Your task to perform on an android device: change the clock display to digital Image 0: 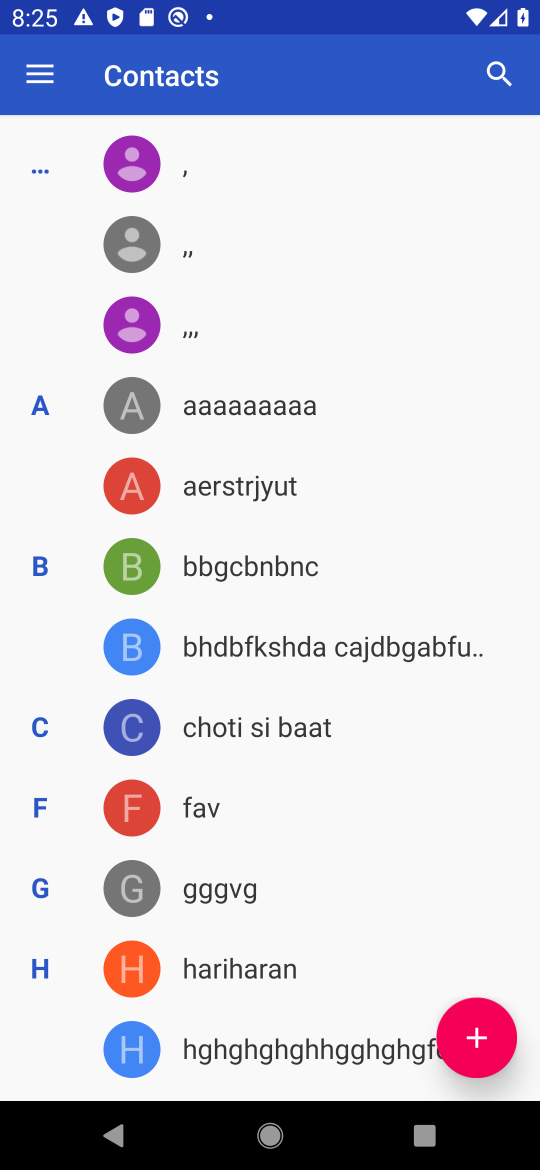
Step 0: press home button
Your task to perform on an android device: change the clock display to digital Image 1: 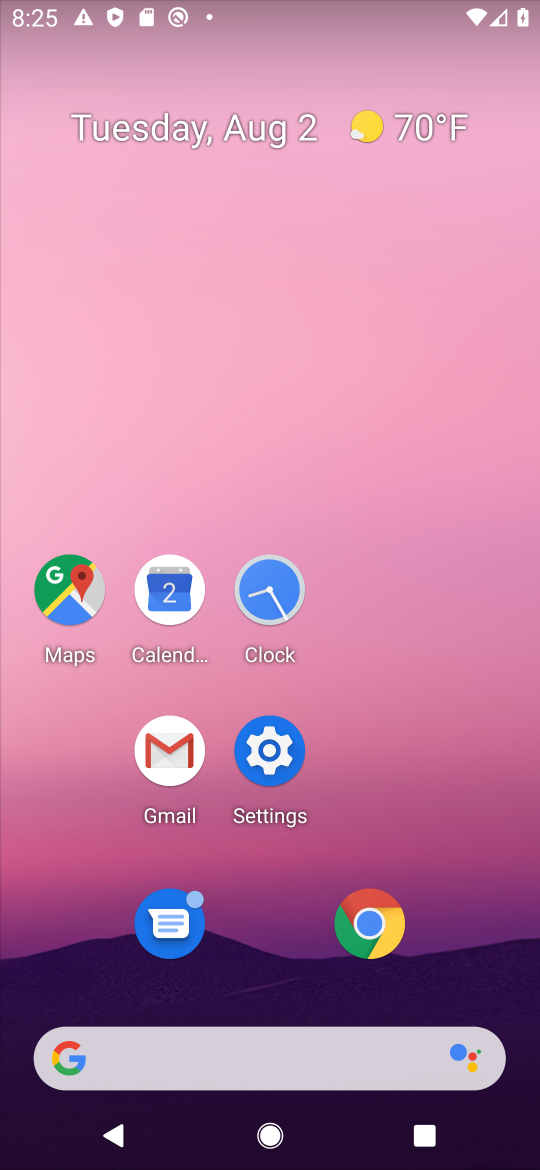
Step 1: click (257, 585)
Your task to perform on an android device: change the clock display to digital Image 2: 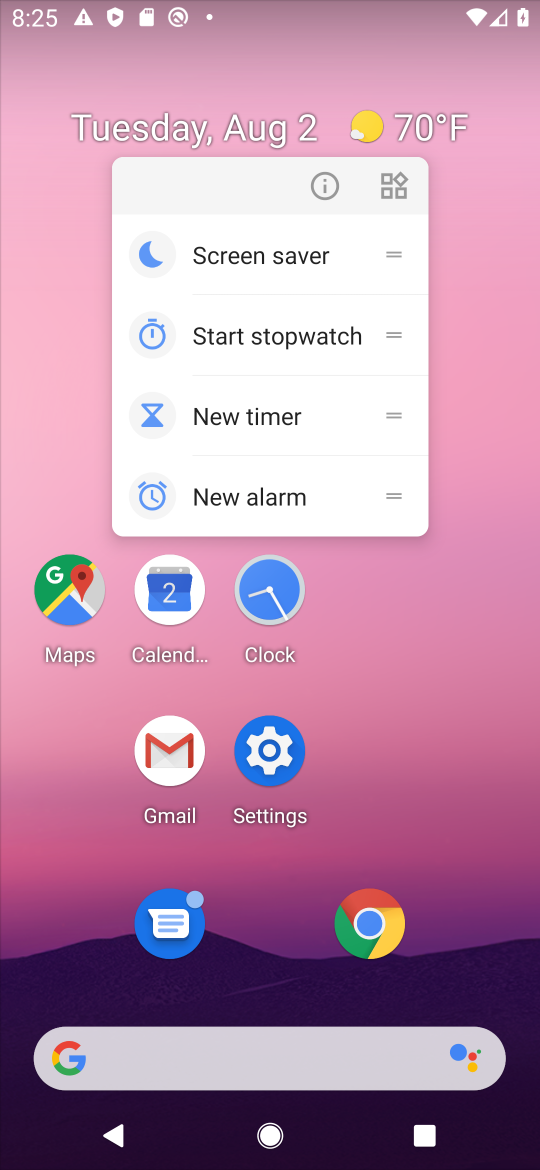
Step 2: click (264, 601)
Your task to perform on an android device: change the clock display to digital Image 3: 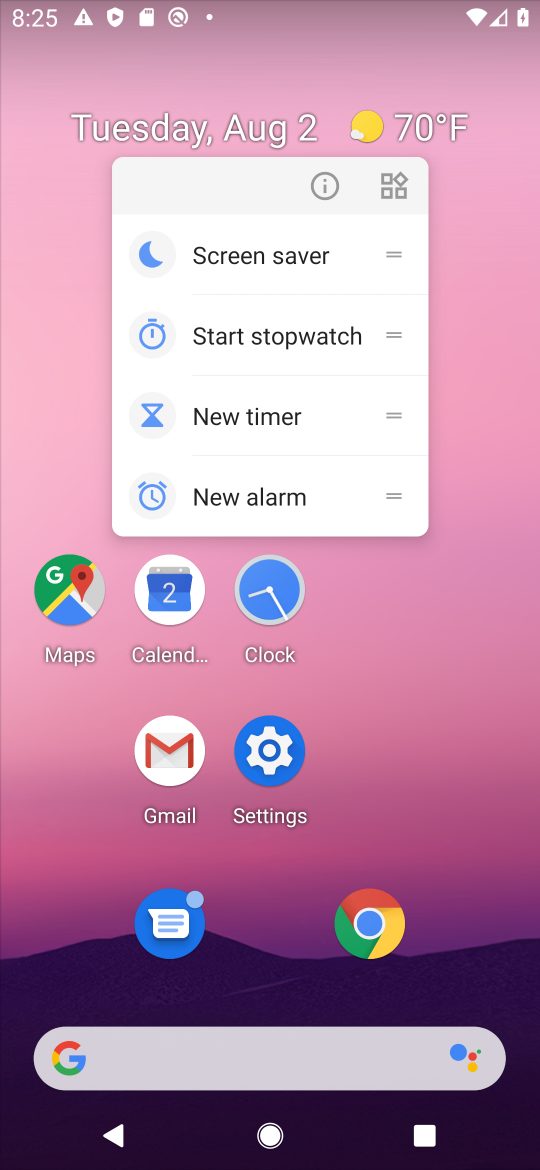
Step 3: click (264, 601)
Your task to perform on an android device: change the clock display to digital Image 4: 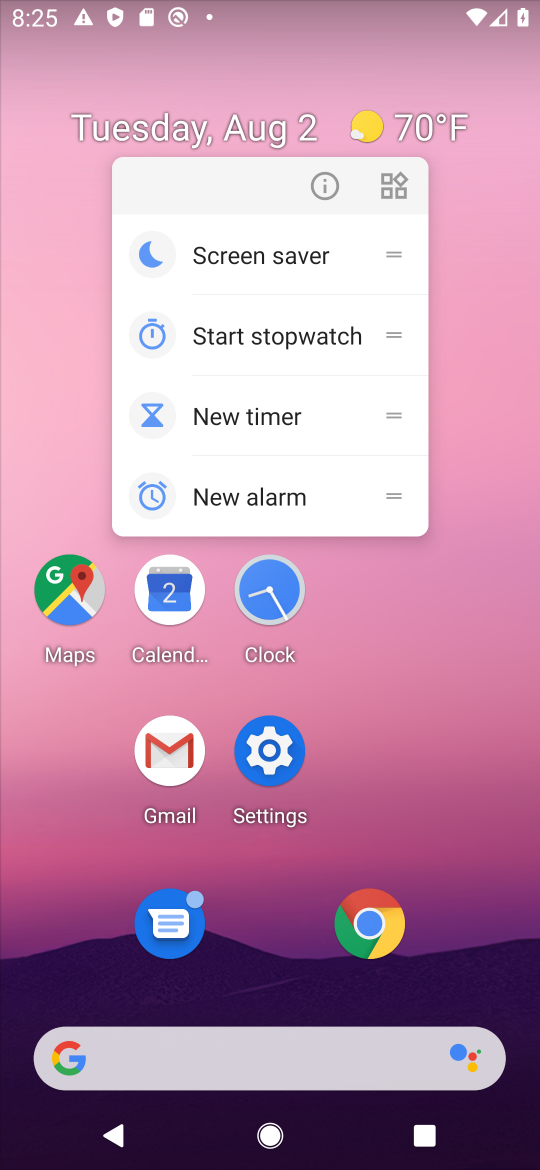
Step 4: click (261, 590)
Your task to perform on an android device: change the clock display to digital Image 5: 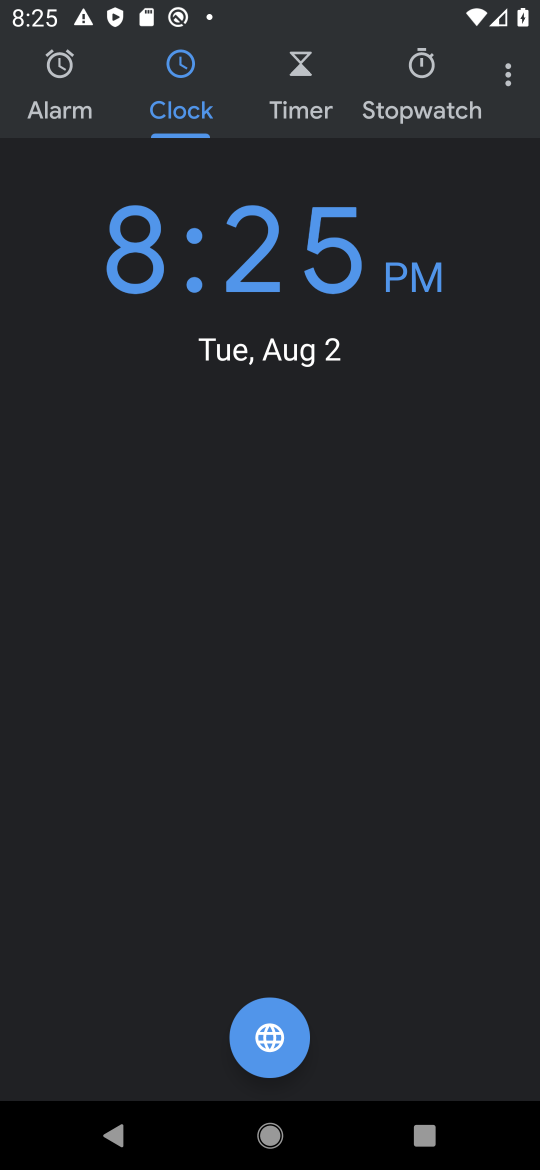
Step 5: click (501, 72)
Your task to perform on an android device: change the clock display to digital Image 6: 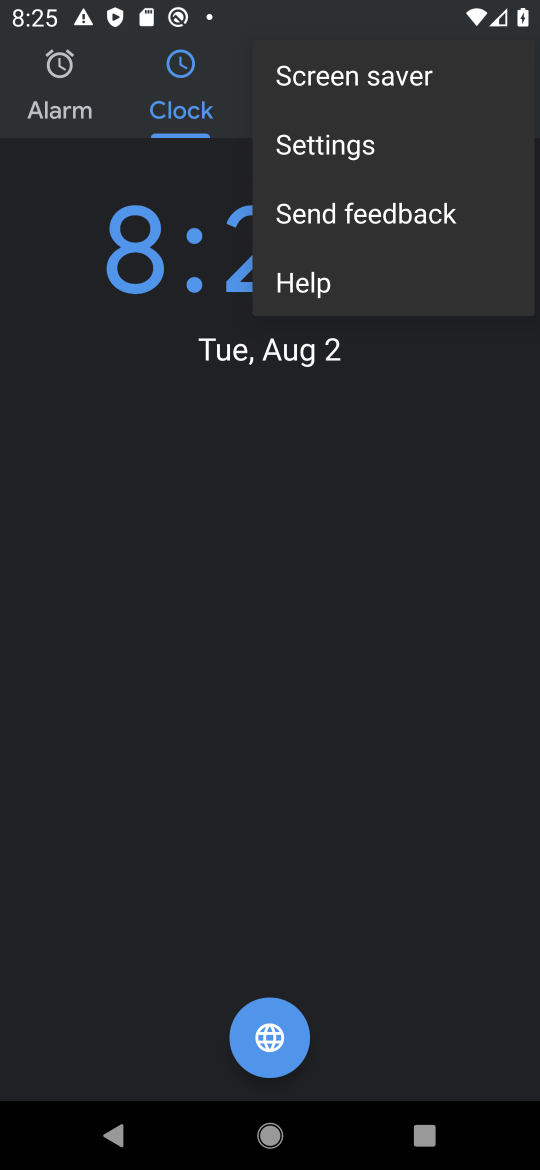
Step 6: click (325, 149)
Your task to perform on an android device: change the clock display to digital Image 7: 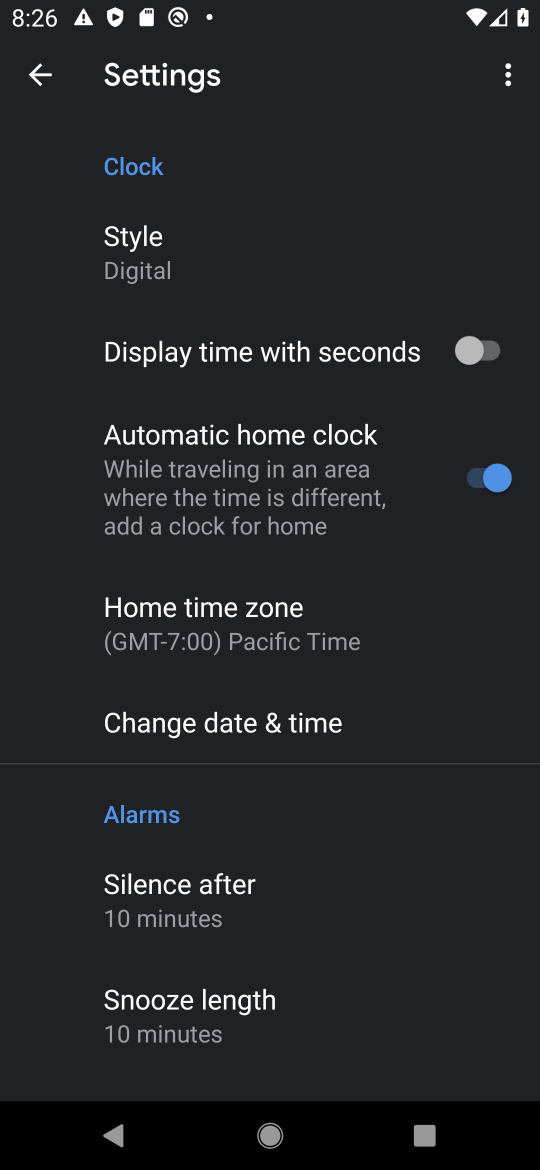
Step 7: click (510, 83)
Your task to perform on an android device: change the clock display to digital Image 8: 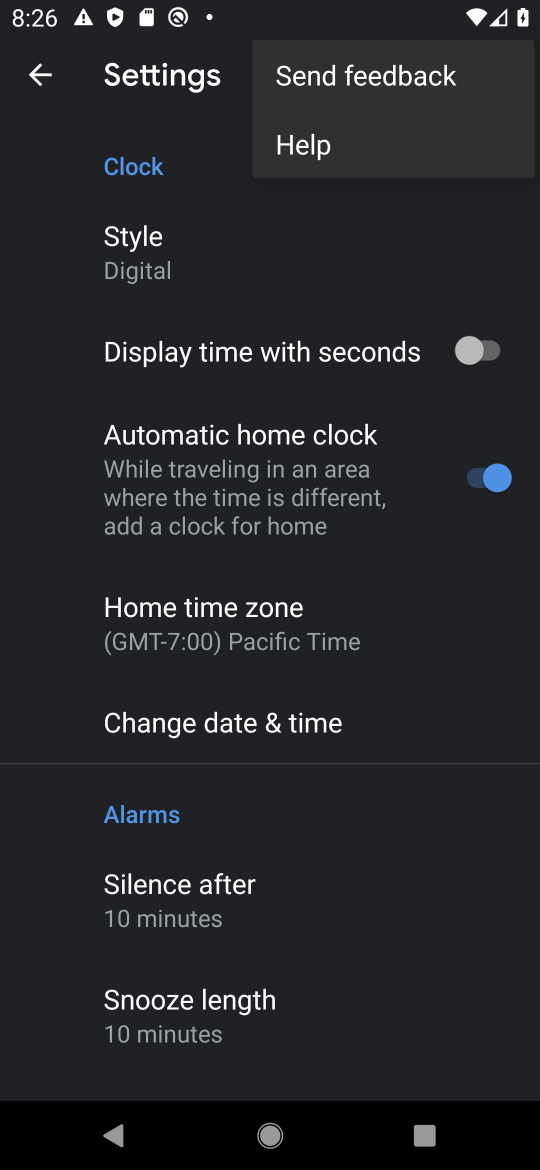
Step 8: click (407, 213)
Your task to perform on an android device: change the clock display to digital Image 9: 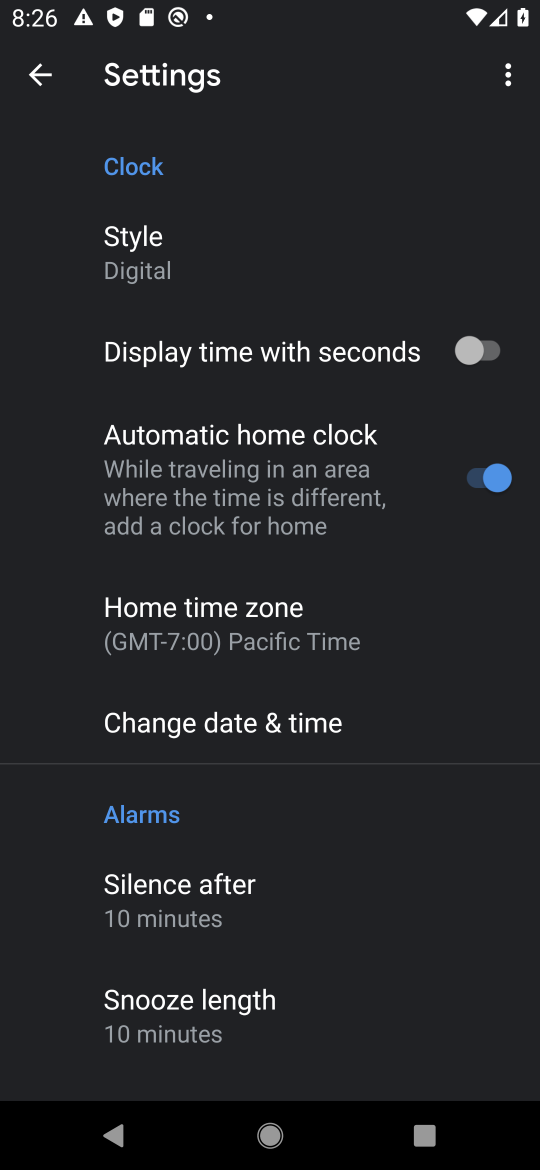
Step 9: click (125, 246)
Your task to perform on an android device: change the clock display to digital Image 10: 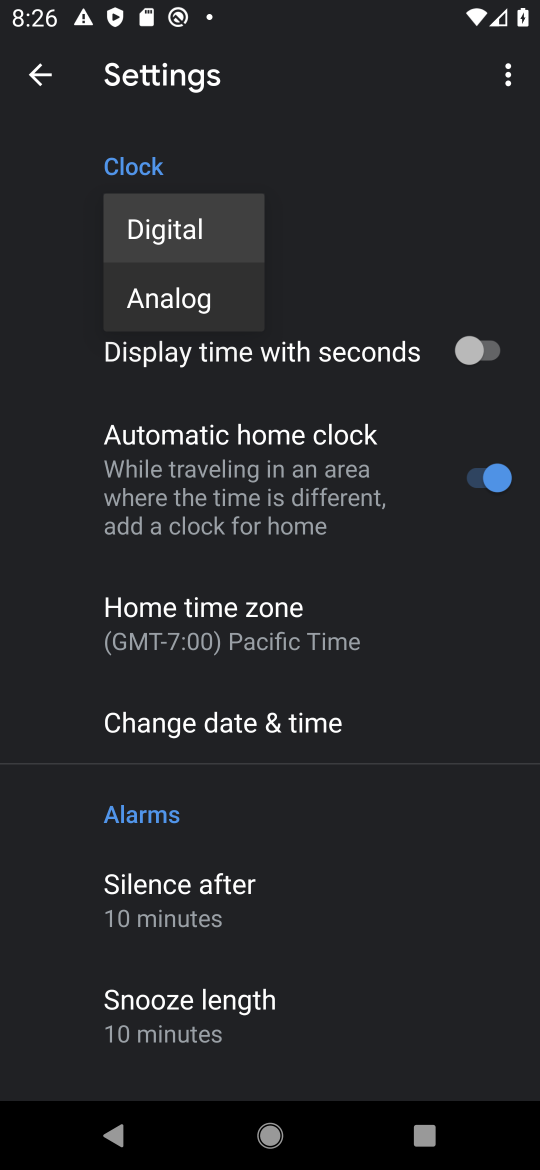
Step 10: click (174, 296)
Your task to perform on an android device: change the clock display to digital Image 11: 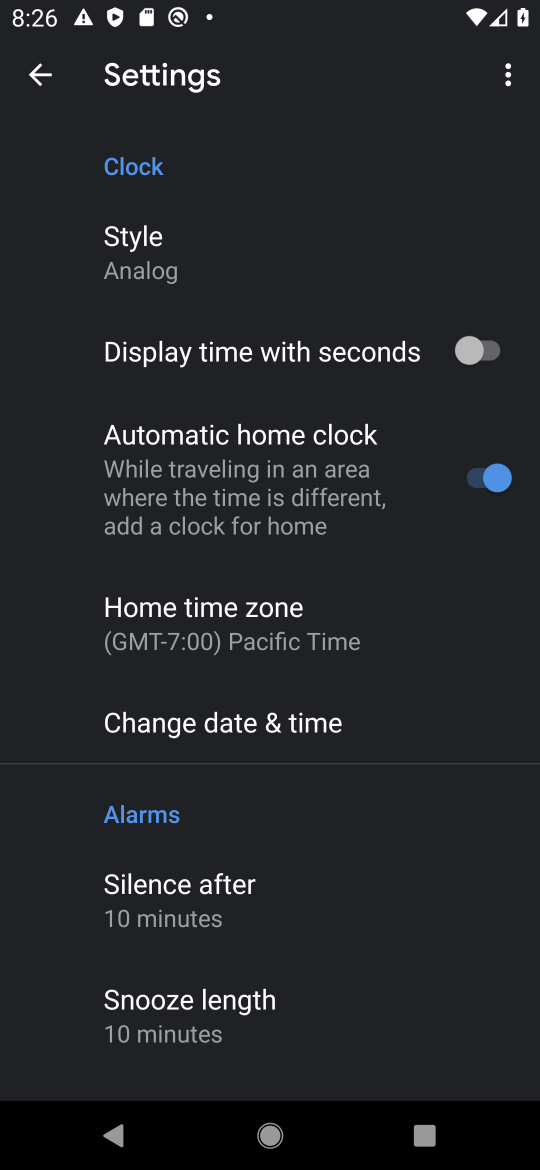
Step 11: task complete